Your task to perform on an android device: Go to ESPN.com Image 0: 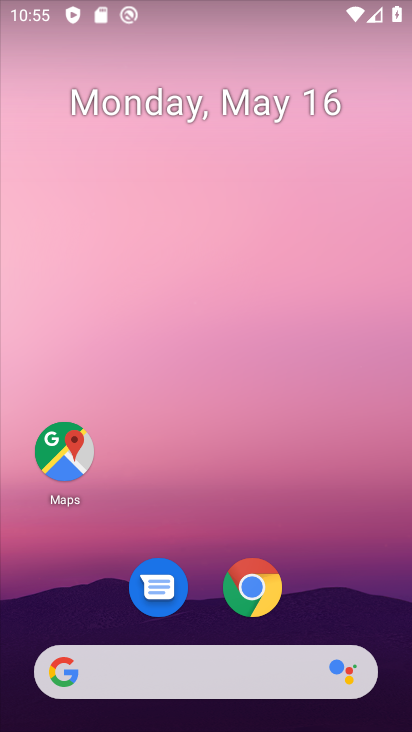
Step 0: drag from (396, 661) to (245, 43)
Your task to perform on an android device: Go to ESPN.com Image 1: 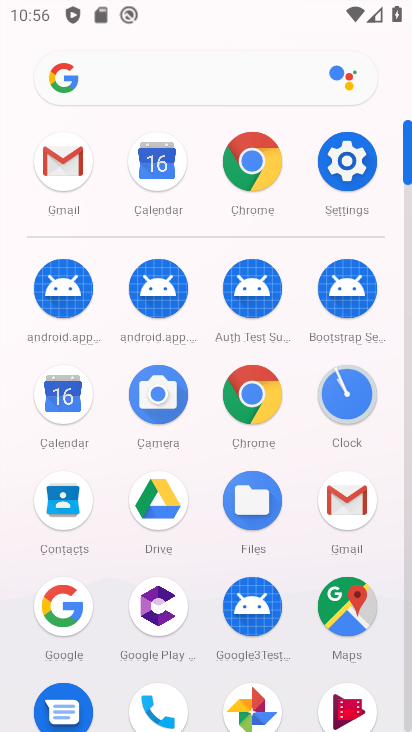
Step 1: click (268, 182)
Your task to perform on an android device: Go to ESPN.com Image 2: 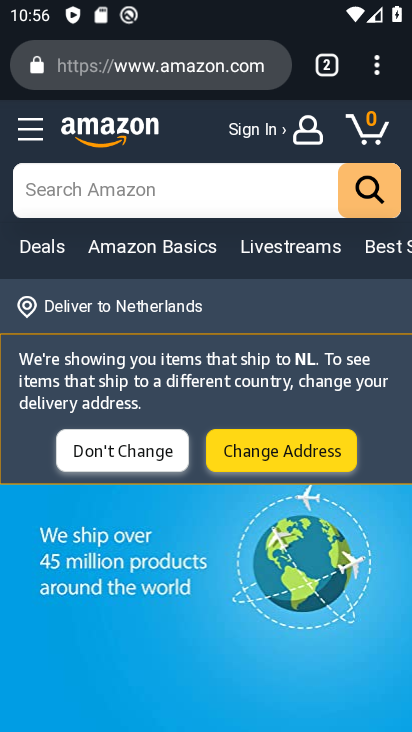
Step 2: press back button
Your task to perform on an android device: Go to ESPN.com Image 3: 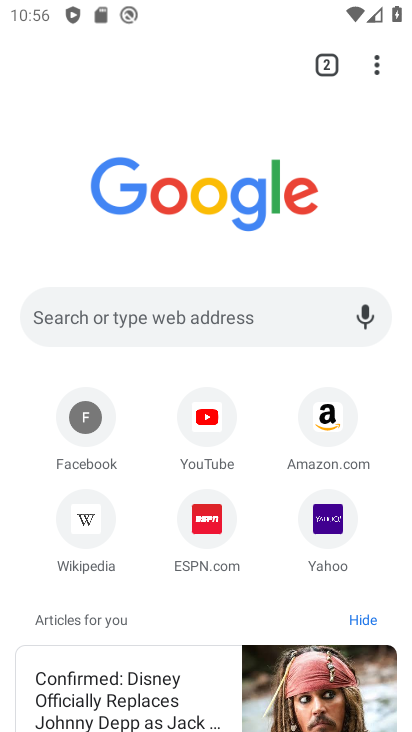
Step 3: click (201, 534)
Your task to perform on an android device: Go to ESPN.com Image 4: 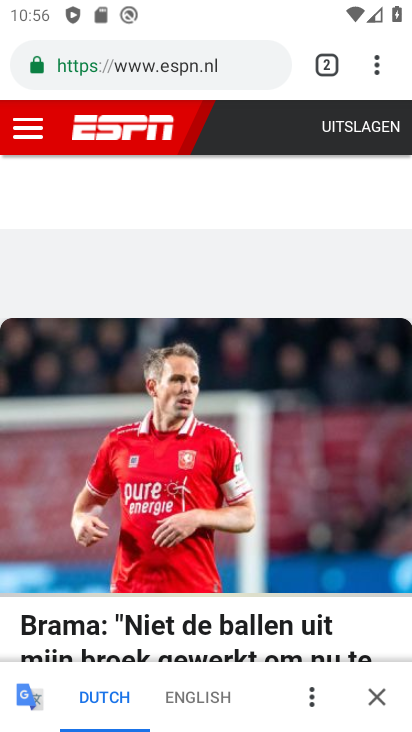
Step 4: task complete